Your task to perform on an android device: Open Chrome and go to the settings page Image 0: 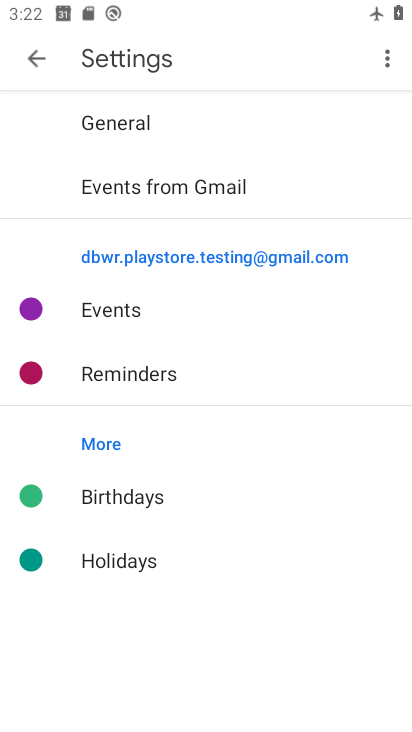
Step 0: press home button
Your task to perform on an android device: Open Chrome and go to the settings page Image 1: 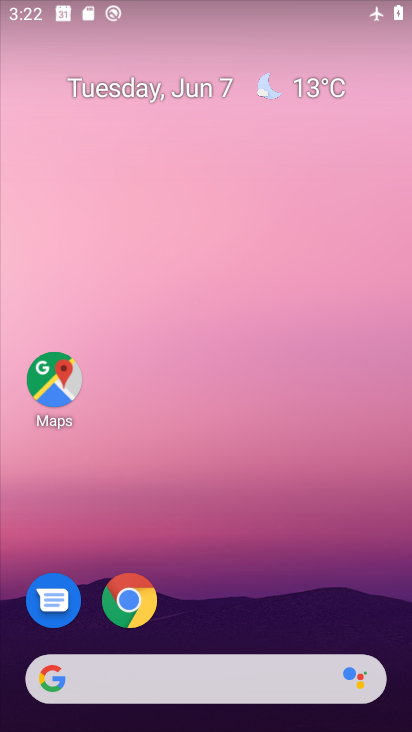
Step 1: click (131, 610)
Your task to perform on an android device: Open Chrome and go to the settings page Image 2: 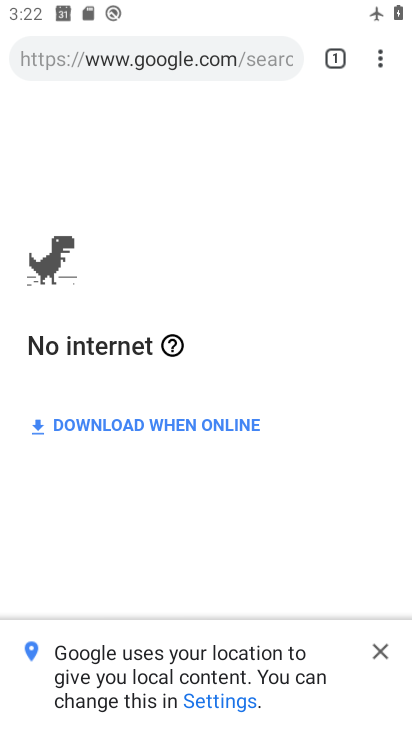
Step 2: task complete